Your task to perform on an android device: Open Google Maps Image 0: 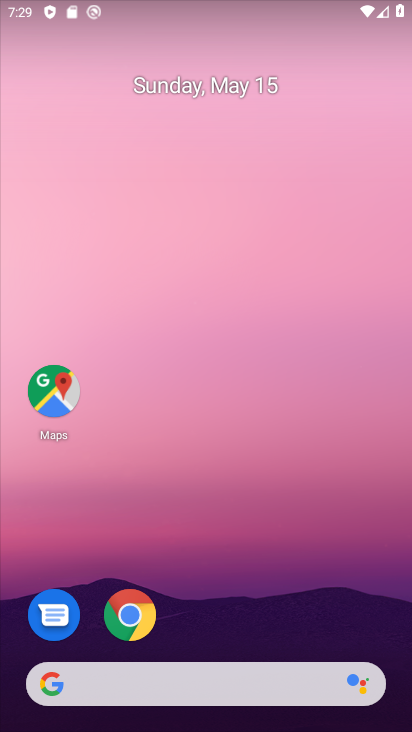
Step 0: drag from (252, 618) to (230, 161)
Your task to perform on an android device: Open Google Maps Image 1: 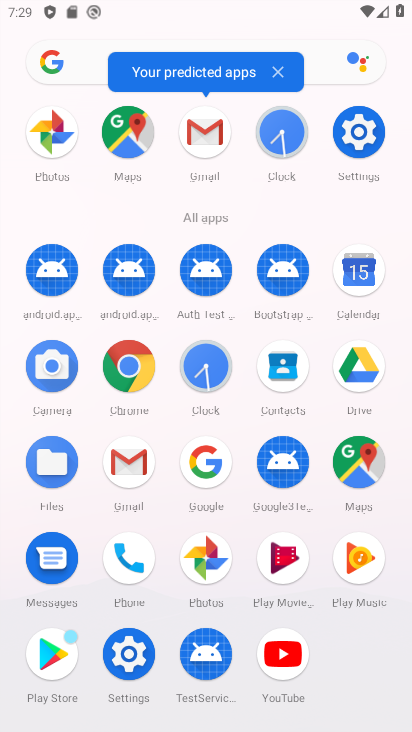
Step 1: click (119, 139)
Your task to perform on an android device: Open Google Maps Image 2: 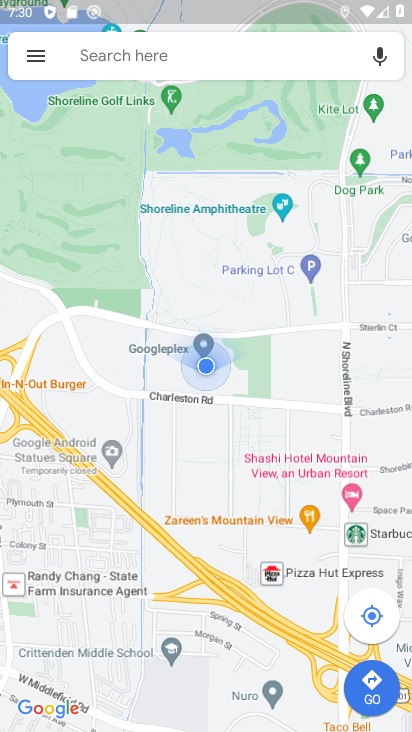
Step 2: task complete